Your task to perform on an android device: Clear the shopping cart on bestbuy.com. Image 0: 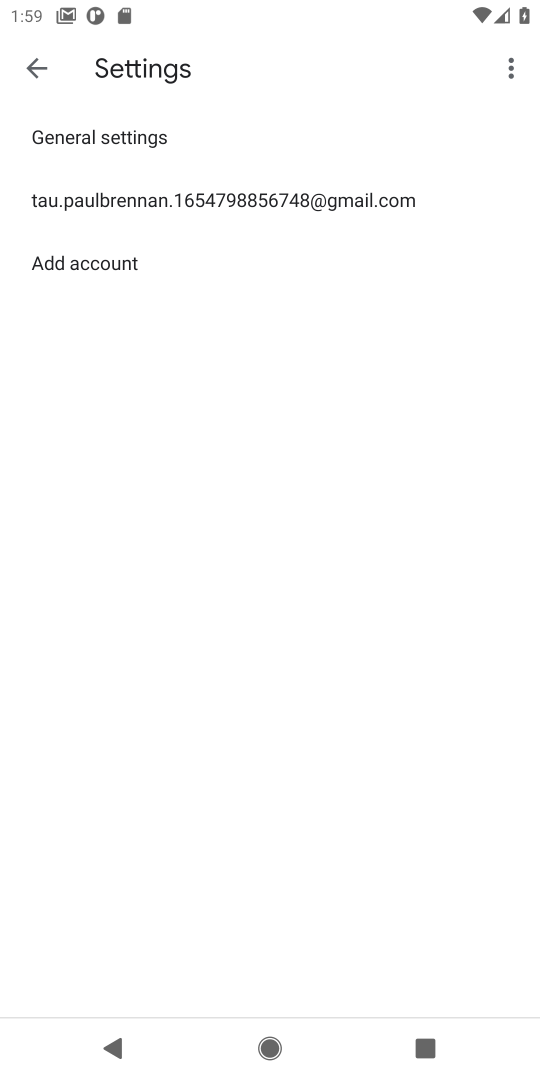
Step 0: press home button
Your task to perform on an android device: Clear the shopping cart on bestbuy.com. Image 1: 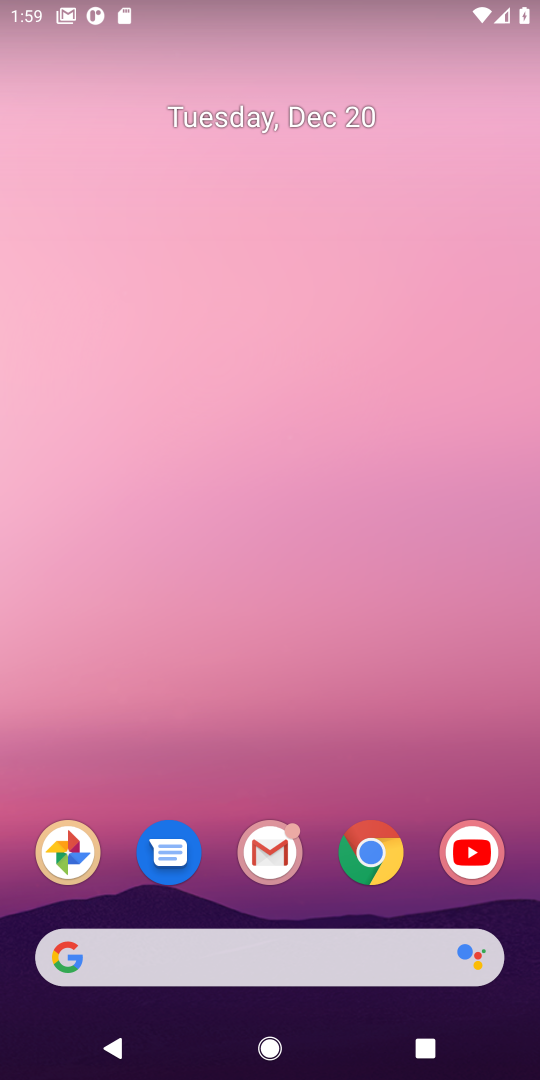
Step 1: click (388, 861)
Your task to perform on an android device: Clear the shopping cart on bestbuy.com. Image 2: 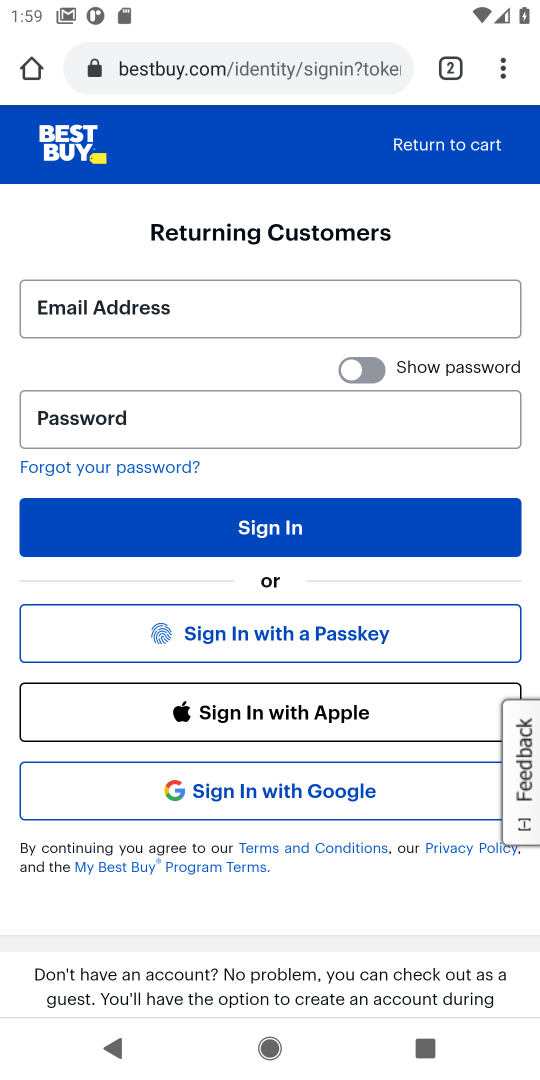
Step 2: press back button
Your task to perform on an android device: Clear the shopping cart on bestbuy.com. Image 3: 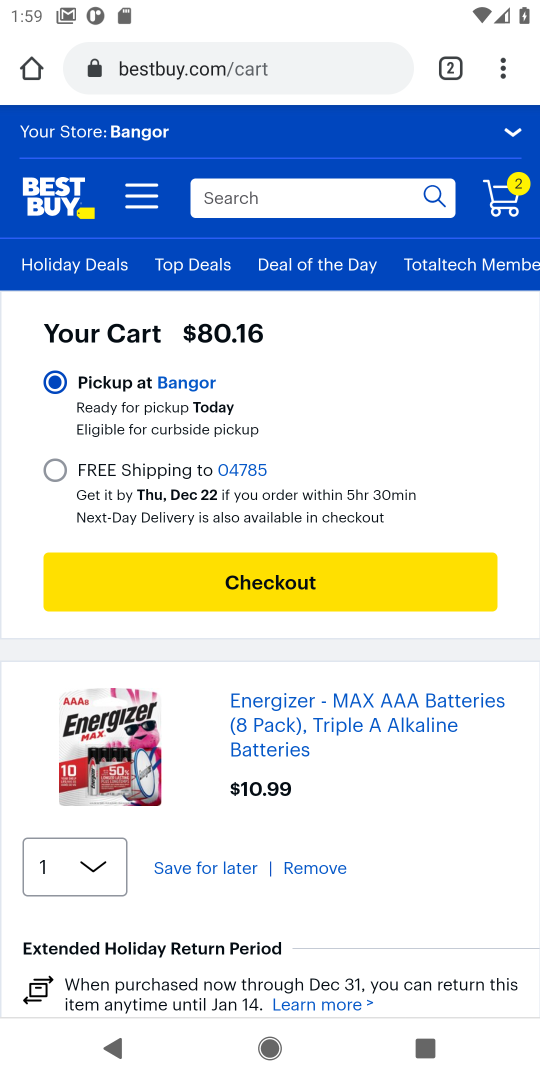
Step 3: drag from (221, 639) to (241, 355)
Your task to perform on an android device: Clear the shopping cart on bestbuy.com. Image 4: 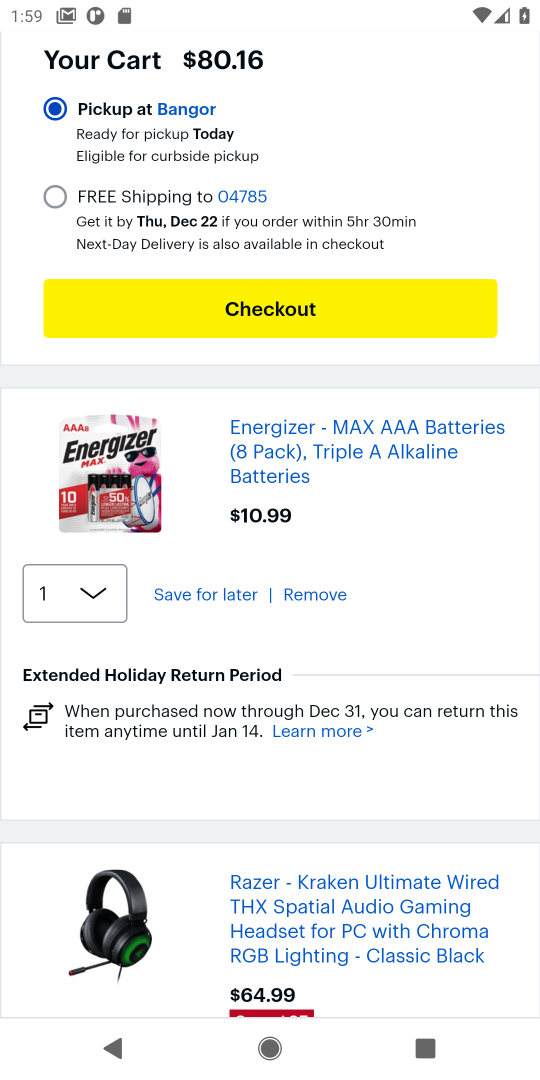
Step 4: click (299, 600)
Your task to perform on an android device: Clear the shopping cart on bestbuy.com. Image 5: 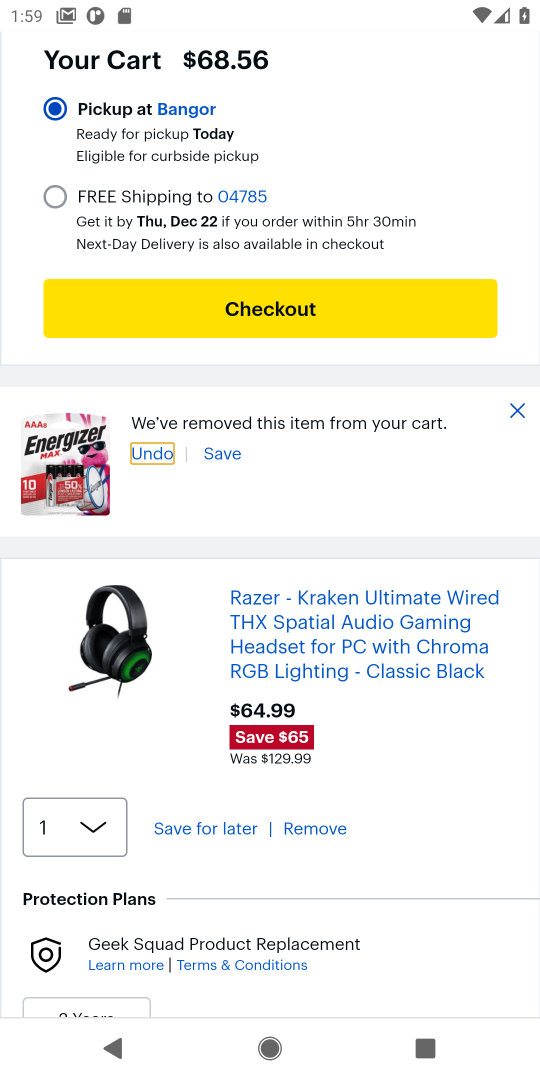
Step 5: click (313, 838)
Your task to perform on an android device: Clear the shopping cart on bestbuy.com. Image 6: 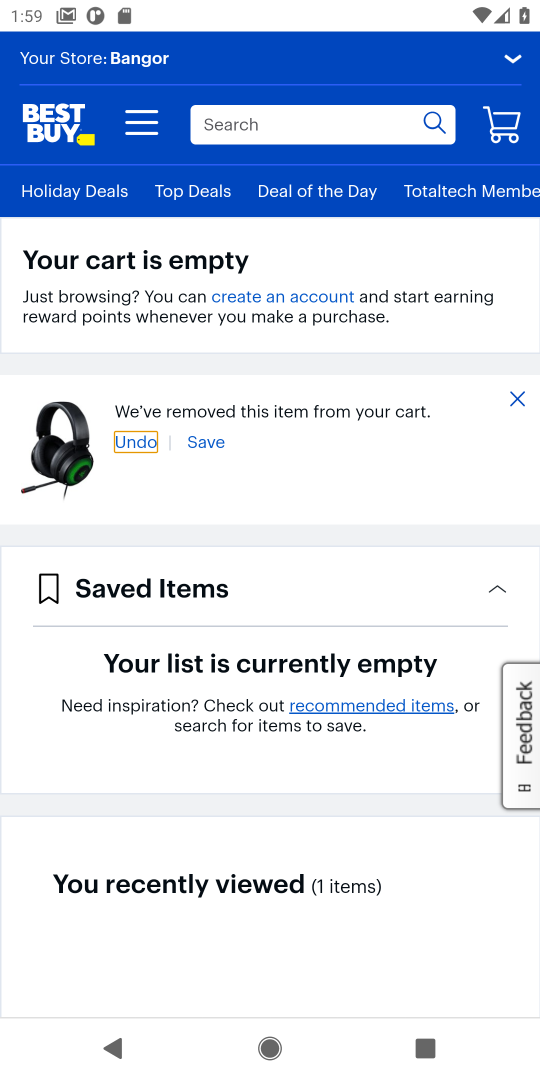
Step 6: task complete